Your task to perform on an android device: make emails show in primary in the gmail app Image 0: 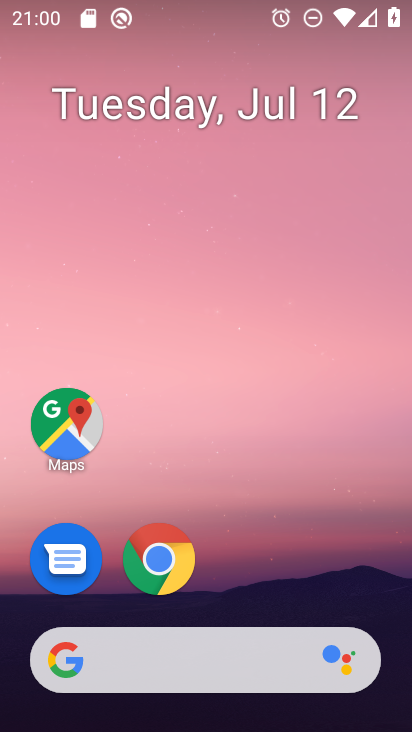
Step 0: drag from (365, 572) to (369, 204)
Your task to perform on an android device: make emails show in primary in the gmail app Image 1: 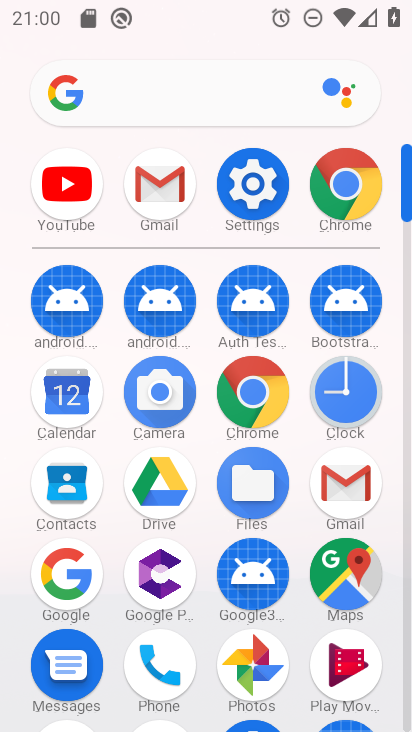
Step 1: click (346, 491)
Your task to perform on an android device: make emails show in primary in the gmail app Image 2: 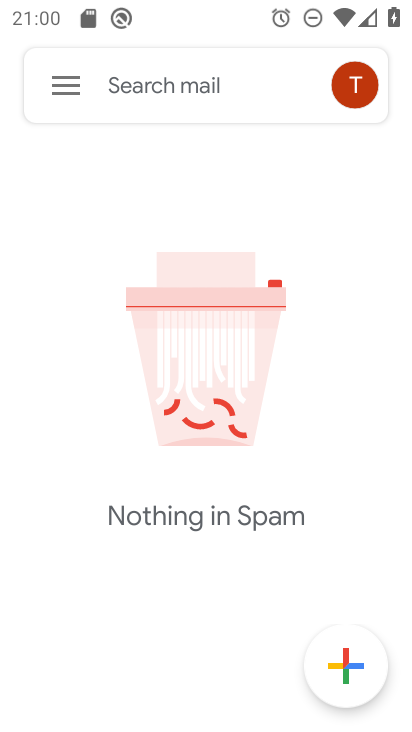
Step 2: click (58, 85)
Your task to perform on an android device: make emails show in primary in the gmail app Image 3: 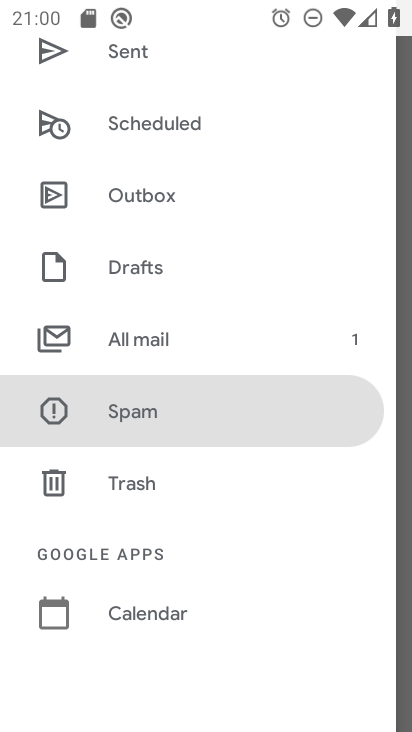
Step 3: drag from (298, 213) to (311, 350)
Your task to perform on an android device: make emails show in primary in the gmail app Image 4: 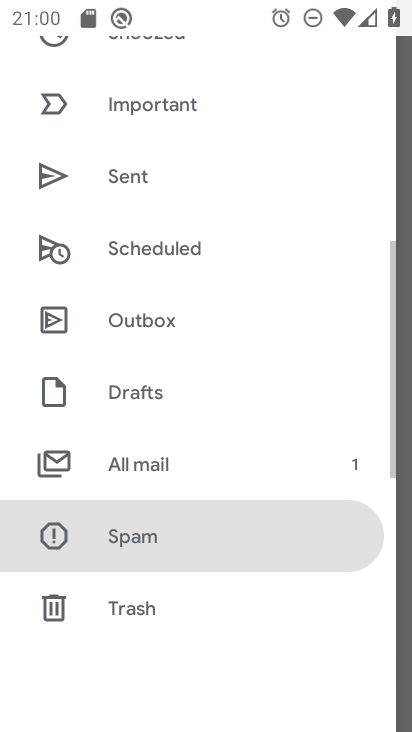
Step 4: drag from (273, 215) to (281, 361)
Your task to perform on an android device: make emails show in primary in the gmail app Image 5: 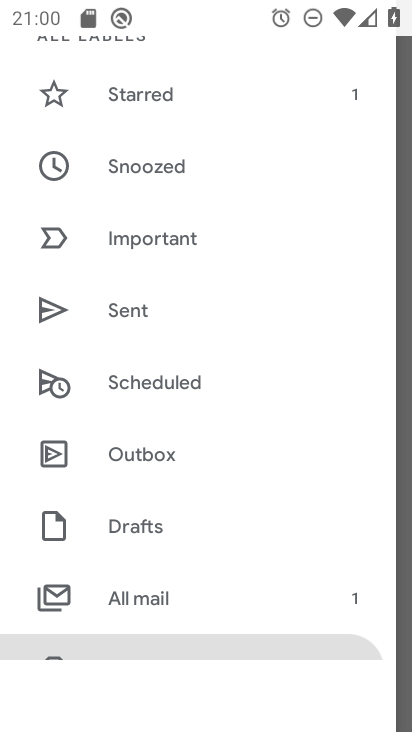
Step 5: drag from (258, 209) to (270, 346)
Your task to perform on an android device: make emails show in primary in the gmail app Image 6: 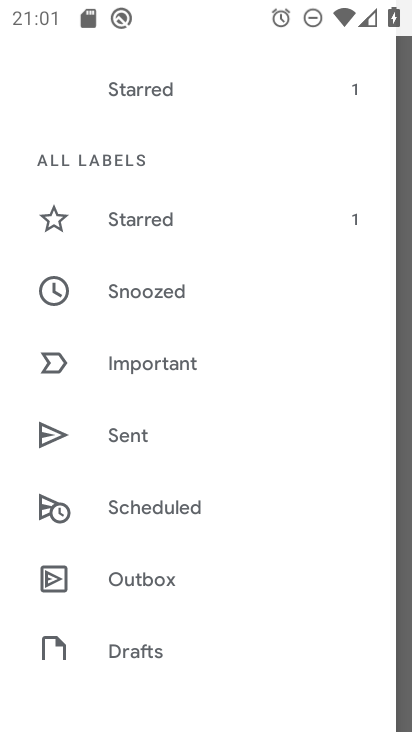
Step 6: drag from (274, 209) to (287, 352)
Your task to perform on an android device: make emails show in primary in the gmail app Image 7: 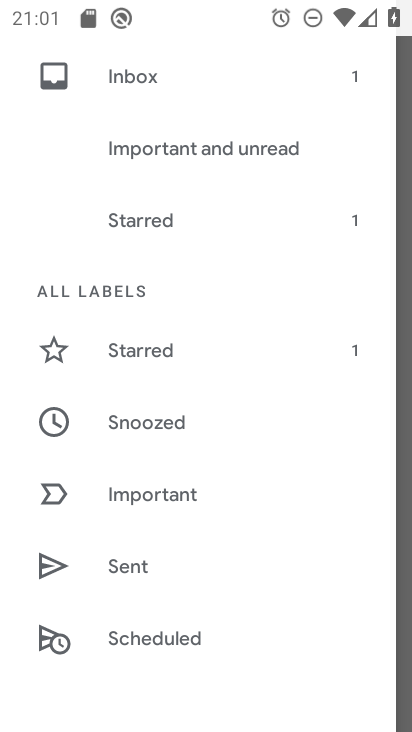
Step 7: drag from (288, 387) to (305, 264)
Your task to perform on an android device: make emails show in primary in the gmail app Image 8: 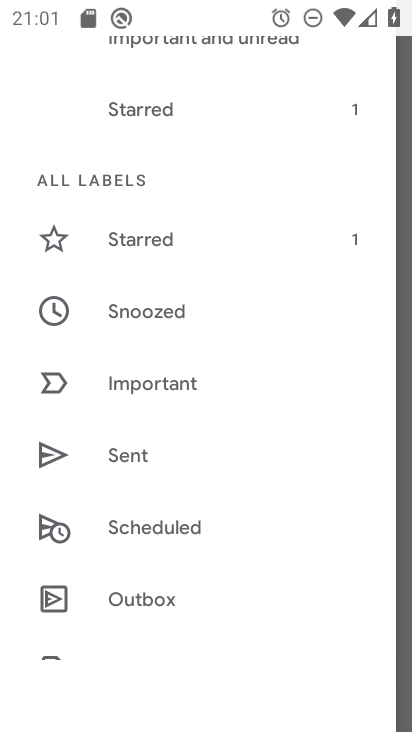
Step 8: drag from (299, 456) to (308, 145)
Your task to perform on an android device: make emails show in primary in the gmail app Image 9: 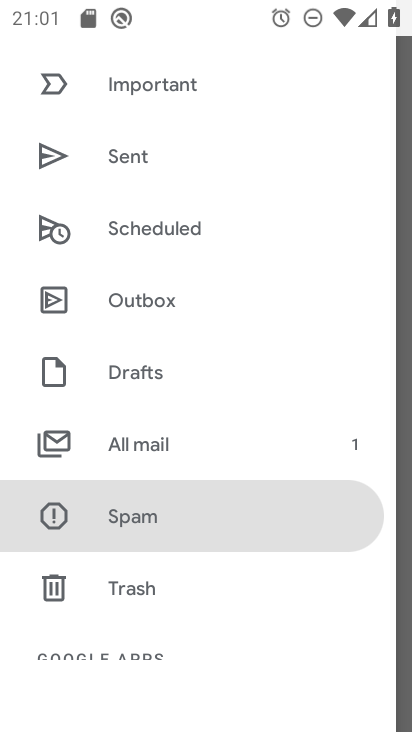
Step 9: drag from (288, 383) to (293, 181)
Your task to perform on an android device: make emails show in primary in the gmail app Image 10: 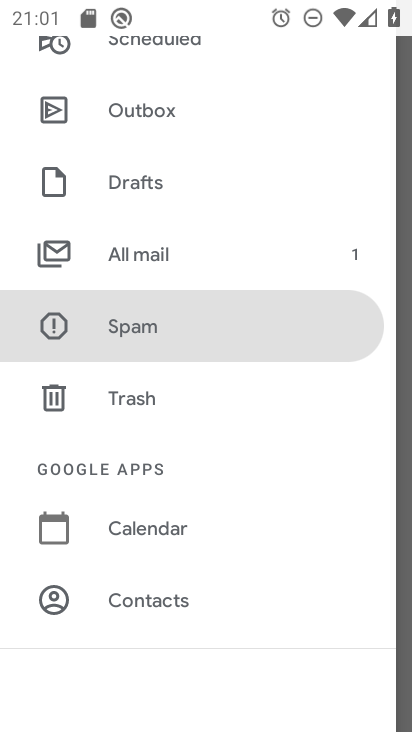
Step 10: drag from (307, 443) to (297, 292)
Your task to perform on an android device: make emails show in primary in the gmail app Image 11: 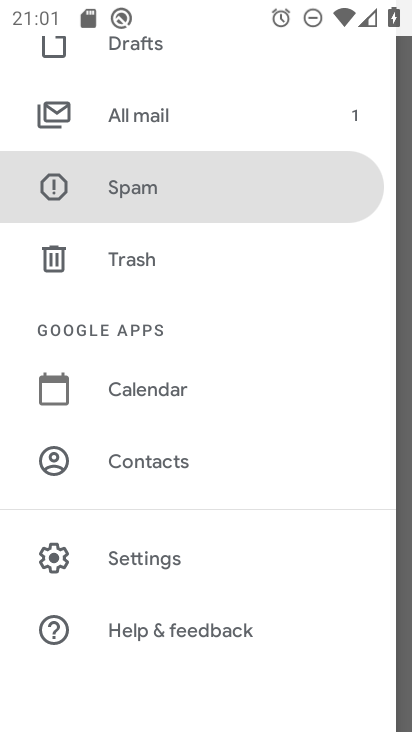
Step 11: drag from (289, 503) to (275, 273)
Your task to perform on an android device: make emails show in primary in the gmail app Image 12: 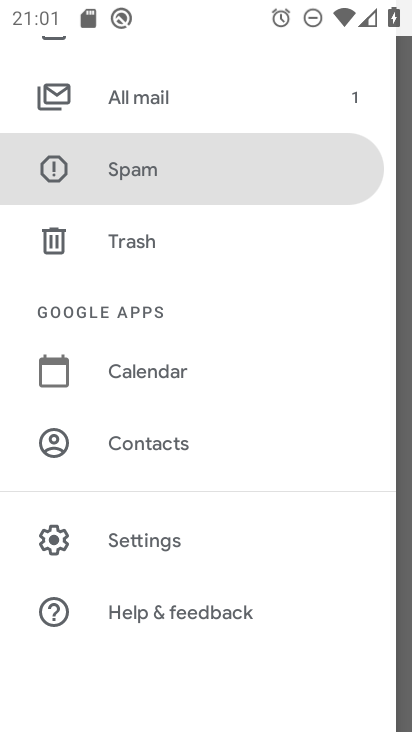
Step 12: click (165, 546)
Your task to perform on an android device: make emails show in primary in the gmail app Image 13: 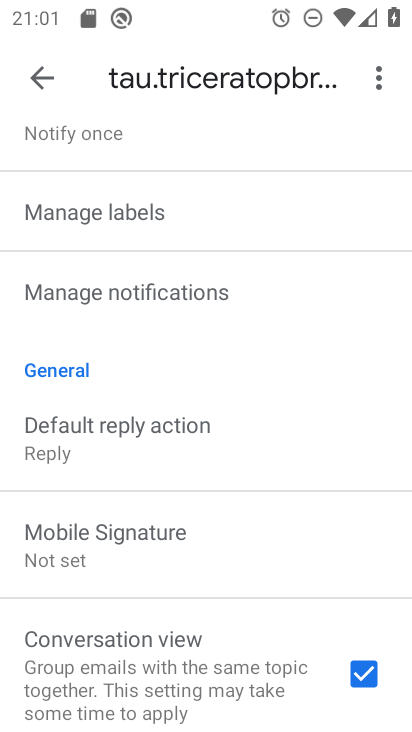
Step 13: drag from (296, 520) to (305, 315)
Your task to perform on an android device: make emails show in primary in the gmail app Image 14: 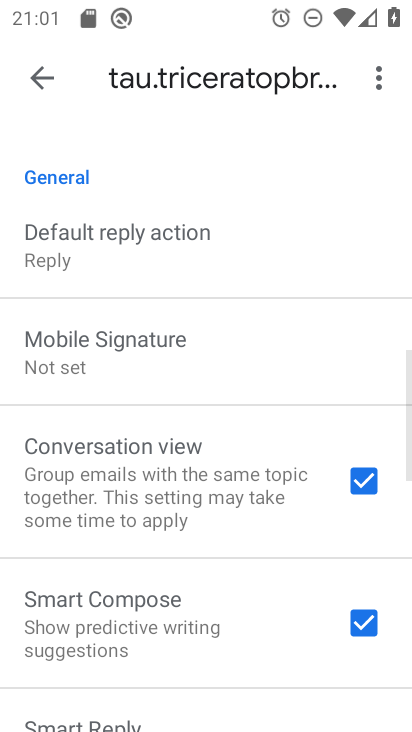
Step 14: drag from (299, 433) to (297, 262)
Your task to perform on an android device: make emails show in primary in the gmail app Image 15: 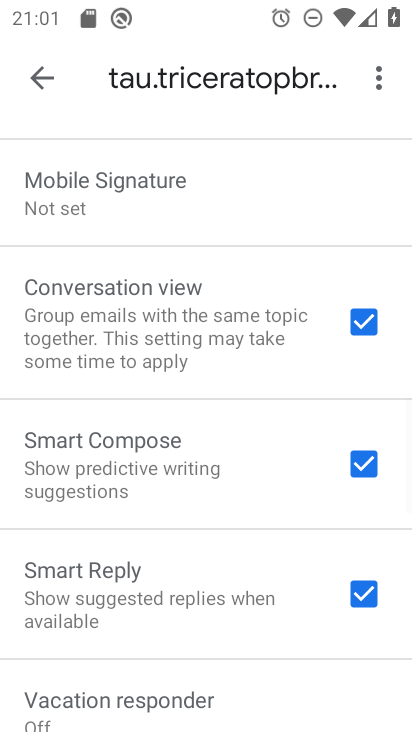
Step 15: drag from (286, 220) to (283, 405)
Your task to perform on an android device: make emails show in primary in the gmail app Image 16: 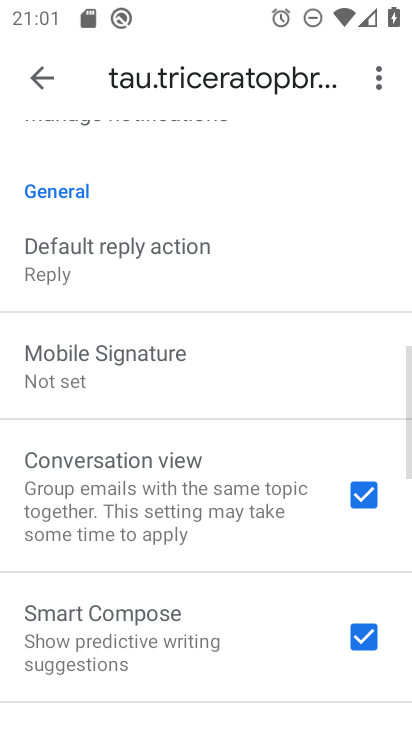
Step 16: drag from (264, 274) to (268, 542)
Your task to perform on an android device: make emails show in primary in the gmail app Image 17: 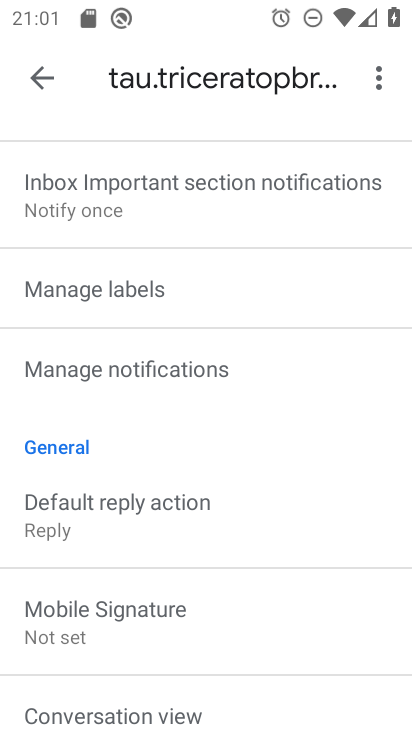
Step 17: drag from (294, 296) to (290, 419)
Your task to perform on an android device: make emails show in primary in the gmail app Image 18: 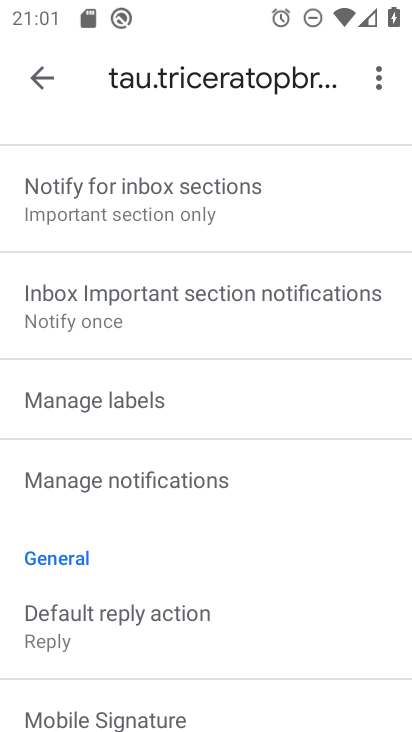
Step 18: drag from (291, 217) to (298, 354)
Your task to perform on an android device: make emails show in primary in the gmail app Image 19: 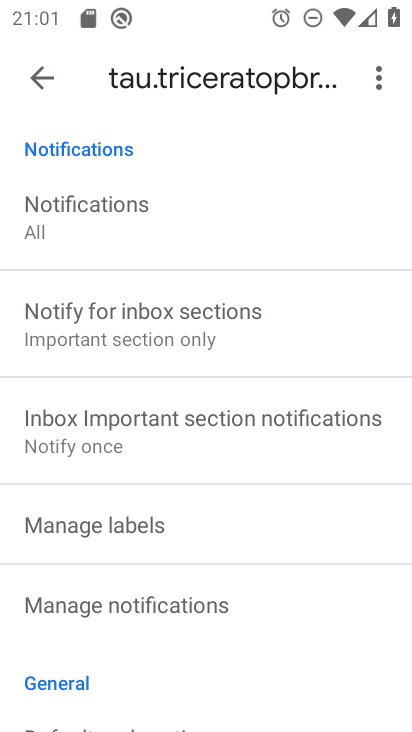
Step 19: drag from (308, 239) to (325, 400)
Your task to perform on an android device: make emails show in primary in the gmail app Image 20: 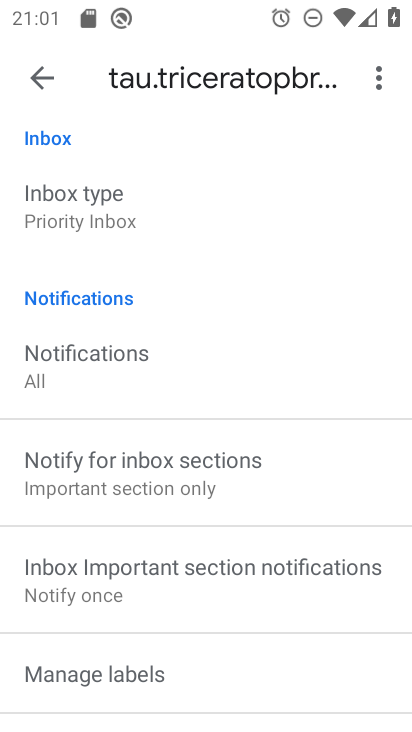
Step 20: click (131, 196)
Your task to perform on an android device: make emails show in primary in the gmail app Image 21: 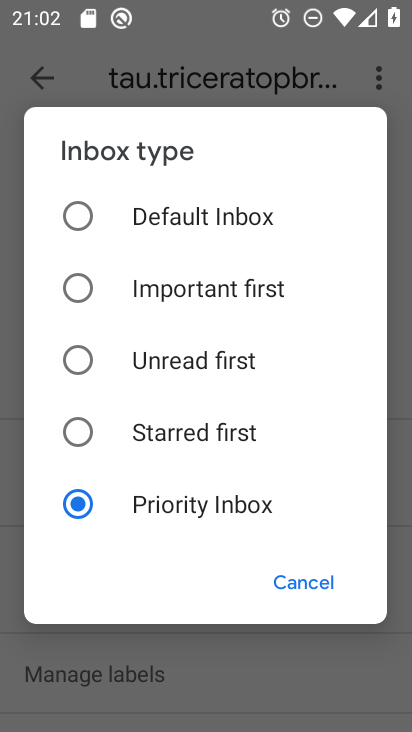
Step 21: click (319, 576)
Your task to perform on an android device: make emails show in primary in the gmail app Image 22: 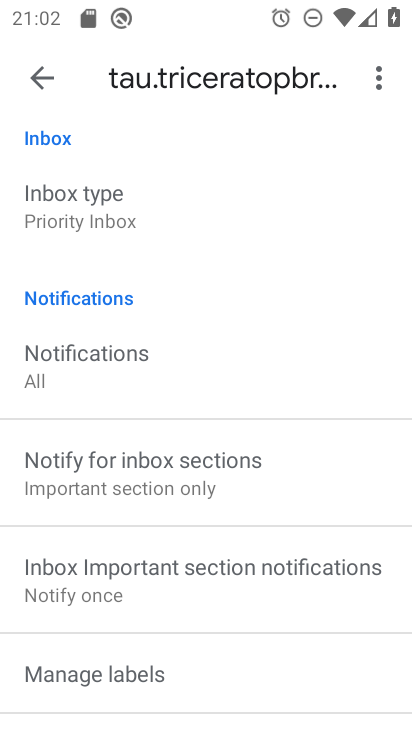
Step 22: drag from (264, 192) to (248, 414)
Your task to perform on an android device: make emails show in primary in the gmail app Image 23: 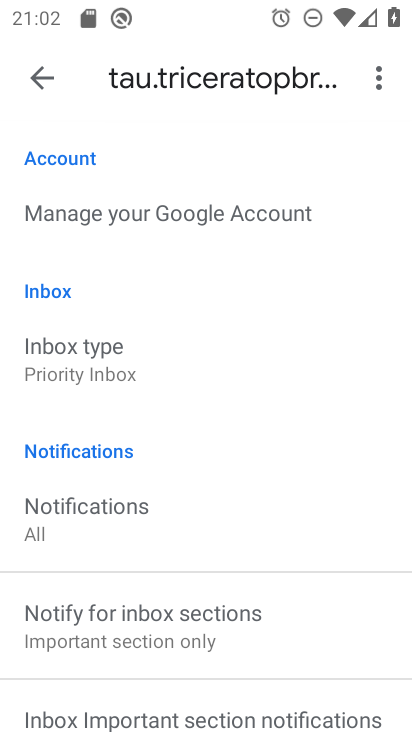
Step 23: click (109, 360)
Your task to perform on an android device: make emails show in primary in the gmail app Image 24: 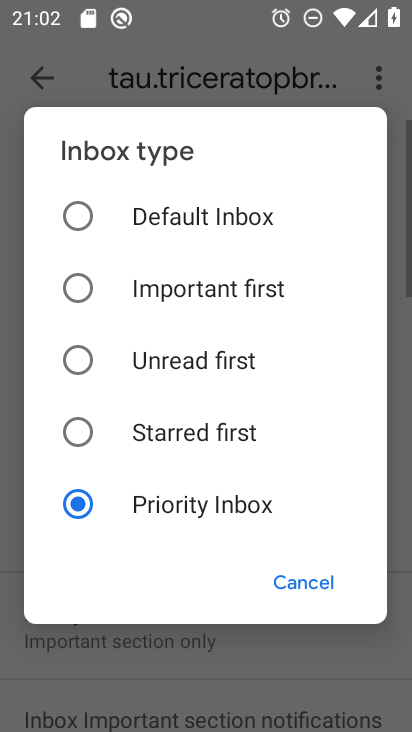
Step 24: click (153, 224)
Your task to perform on an android device: make emails show in primary in the gmail app Image 25: 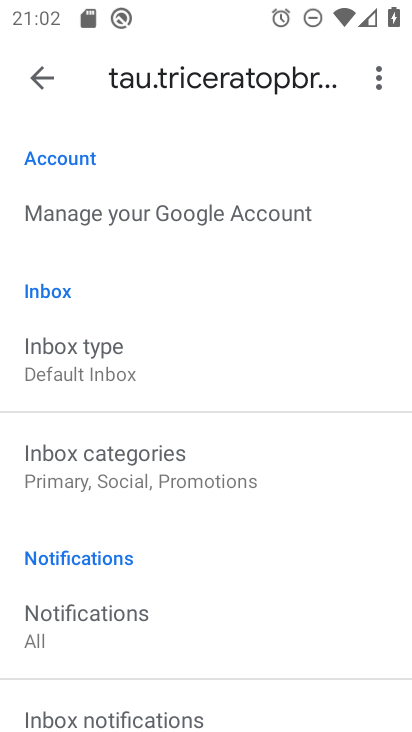
Step 25: click (150, 463)
Your task to perform on an android device: make emails show in primary in the gmail app Image 26: 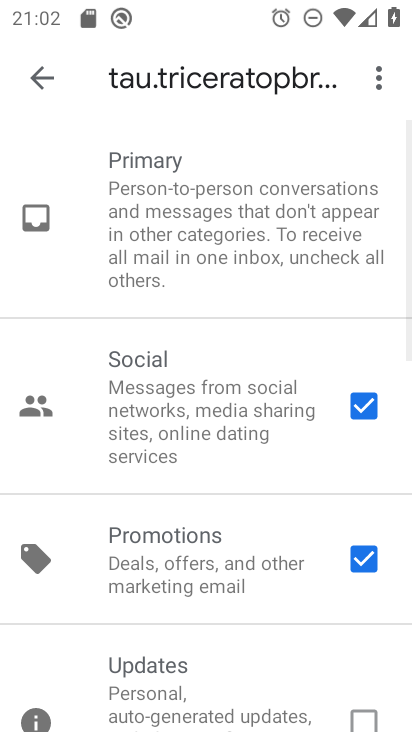
Step 26: click (355, 403)
Your task to perform on an android device: make emails show in primary in the gmail app Image 27: 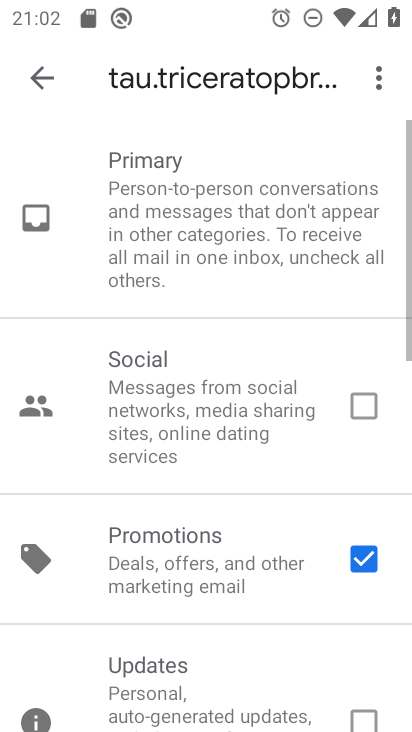
Step 27: click (368, 562)
Your task to perform on an android device: make emails show in primary in the gmail app Image 28: 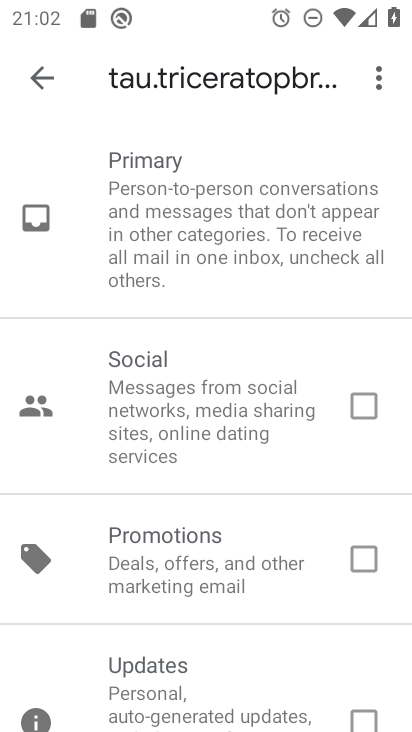
Step 28: task complete